Your task to perform on an android device: Search for pizza restaurants on Maps Image 0: 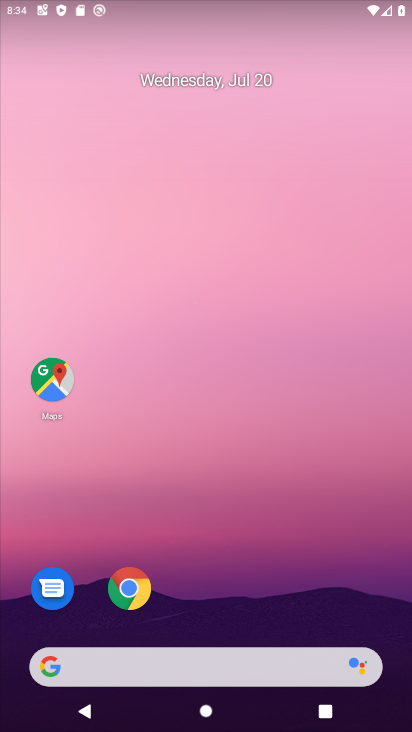
Step 0: click (40, 368)
Your task to perform on an android device: Search for pizza restaurants on Maps Image 1: 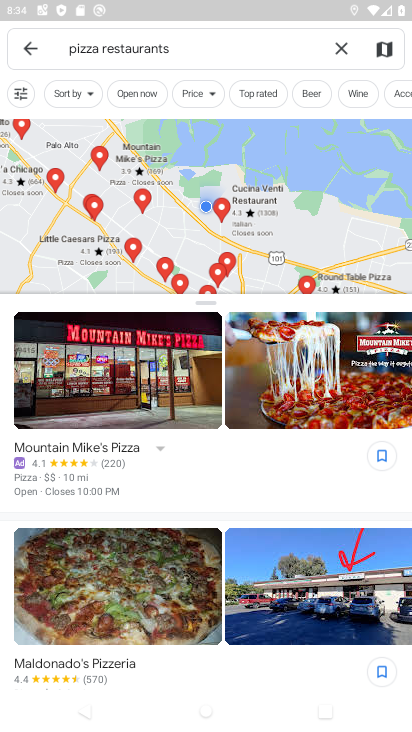
Step 1: task complete